Your task to perform on an android device: Open Google Chrome Image 0: 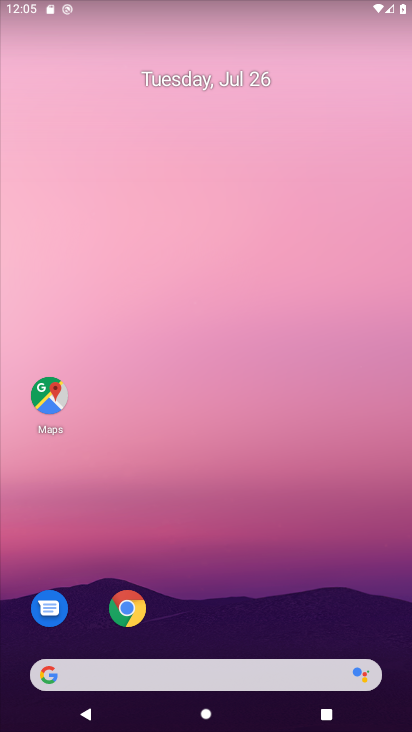
Step 0: click (121, 606)
Your task to perform on an android device: Open Google Chrome Image 1: 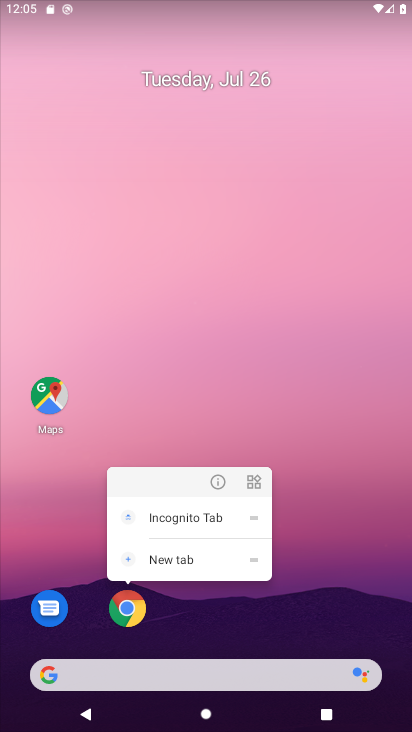
Step 1: click (128, 621)
Your task to perform on an android device: Open Google Chrome Image 2: 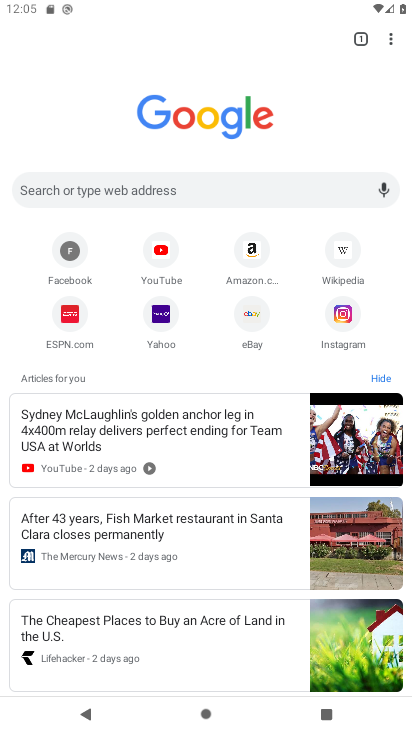
Step 2: task complete